Your task to perform on an android device: Open CNN.com Image 0: 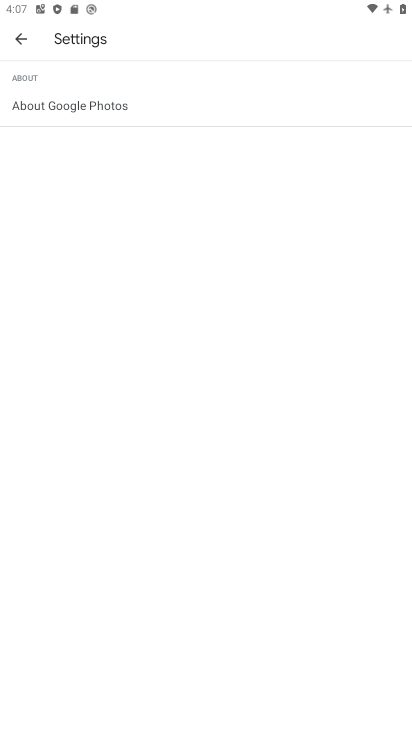
Step 0: press back button
Your task to perform on an android device: Open CNN.com Image 1: 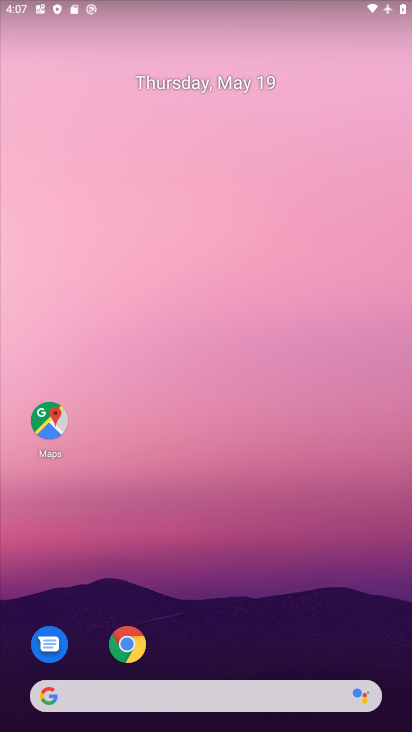
Step 1: drag from (258, 558) to (180, 0)
Your task to perform on an android device: Open CNN.com Image 2: 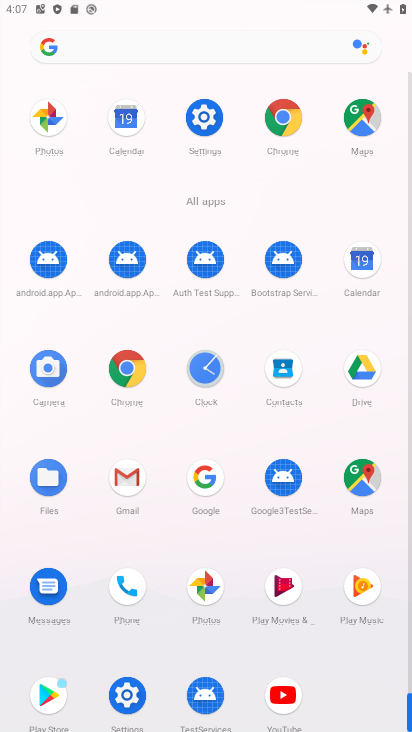
Step 2: click (128, 365)
Your task to perform on an android device: Open CNN.com Image 3: 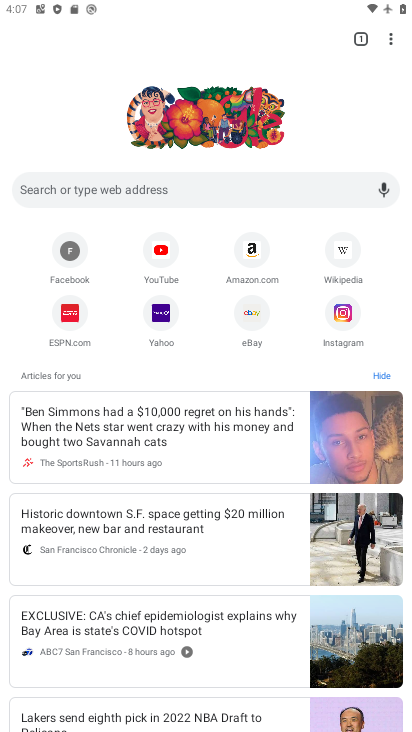
Step 3: click (118, 185)
Your task to perform on an android device: Open CNN.com Image 4: 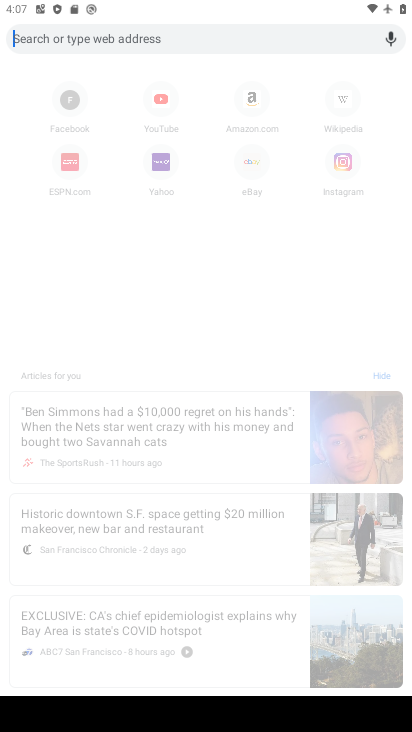
Step 4: type " CNN.com"
Your task to perform on an android device: Open CNN.com Image 5: 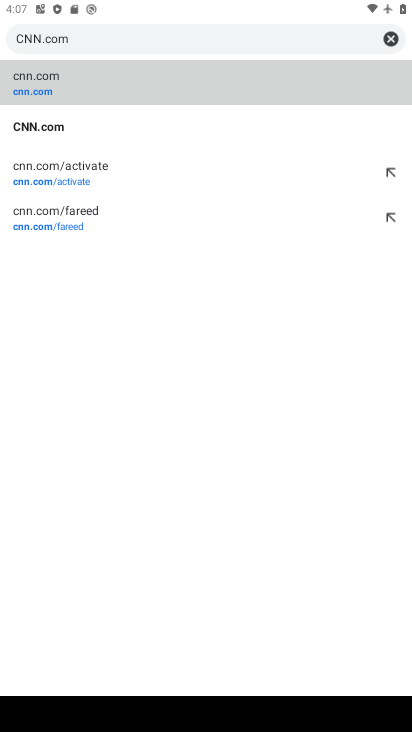
Step 5: click (53, 84)
Your task to perform on an android device: Open CNN.com Image 6: 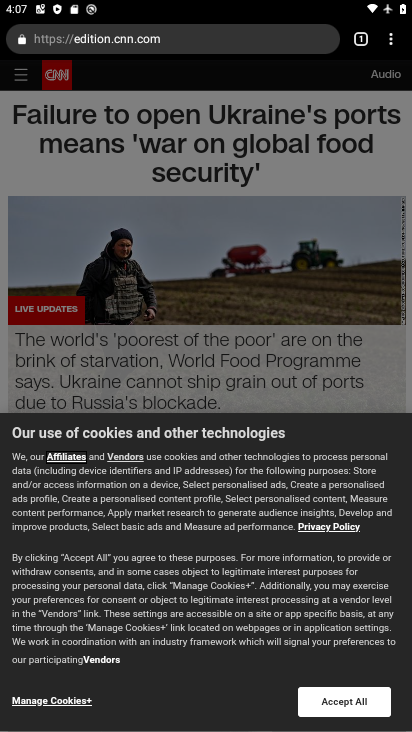
Step 6: task complete